Your task to perform on an android device: Go to settings Image 0: 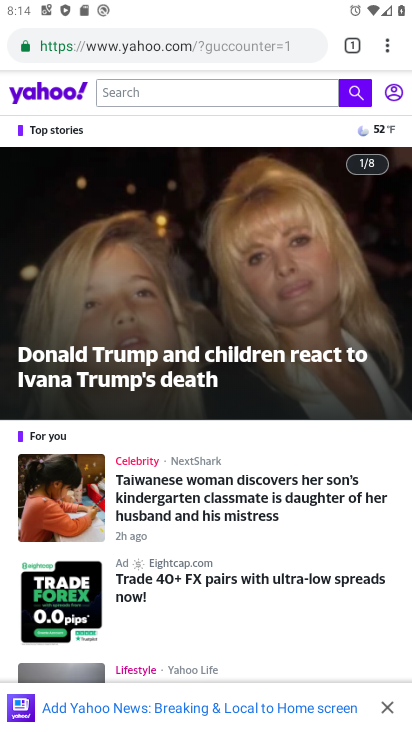
Step 0: press home button
Your task to perform on an android device: Go to settings Image 1: 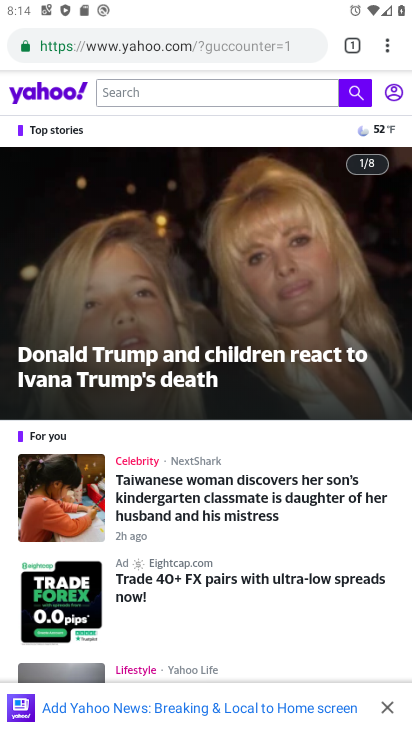
Step 1: press home button
Your task to perform on an android device: Go to settings Image 2: 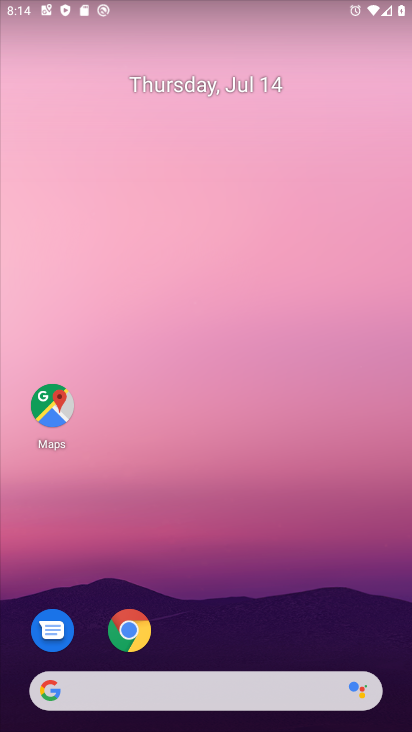
Step 2: drag from (236, 706) to (174, 172)
Your task to perform on an android device: Go to settings Image 3: 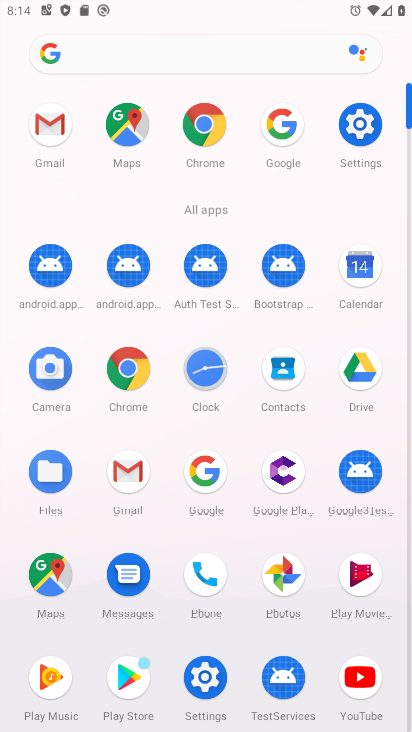
Step 3: click (359, 131)
Your task to perform on an android device: Go to settings Image 4: 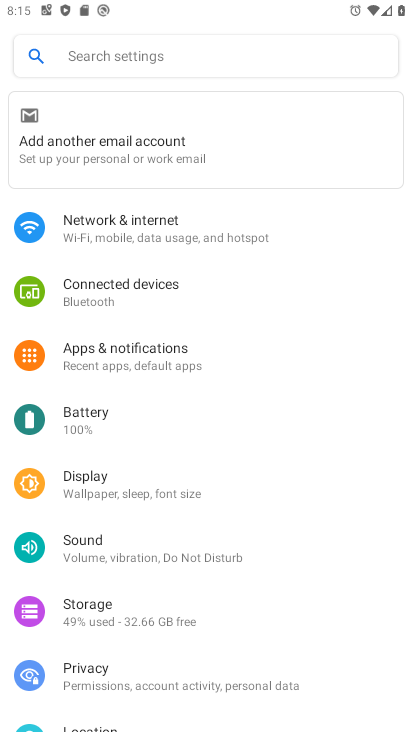
Step 4: task complete